Your task to perform on an android device: show emergency info Image 0: 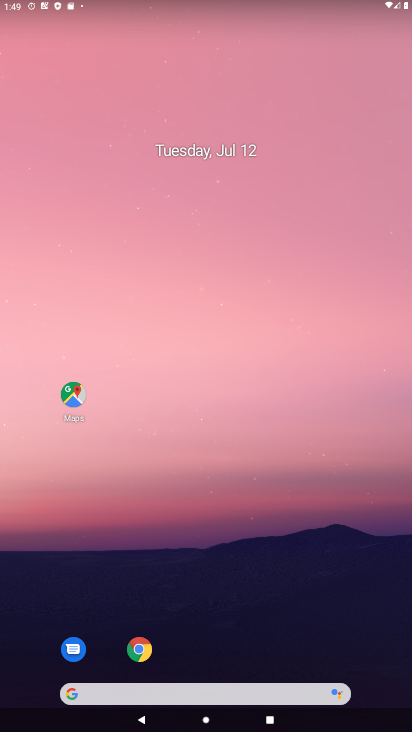
Step 0: drag from (387, 683) to (177, 18)
Your task to perform on an android device: show emergency info Image 1: 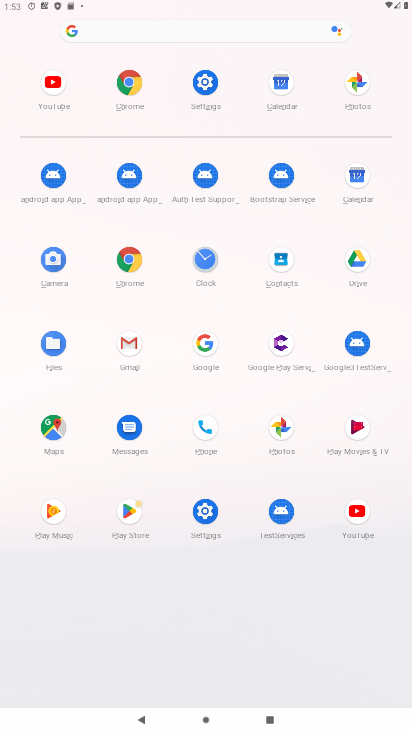
Step 1: click (204, 514)
Your task to perform on an android device: show emergency info Image 2: 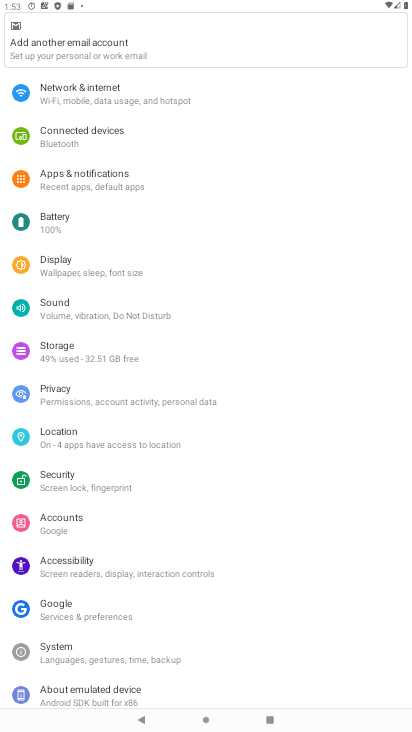
Step 2: click (72, 684)
Your task to perform on an android device: show emergency info Image 3: 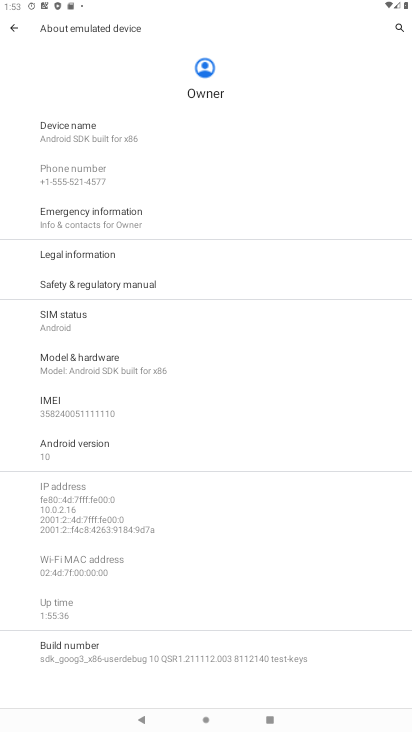
Step 3: click (96, 224)
Your task to perform on an android device: show emergency info Image 4: 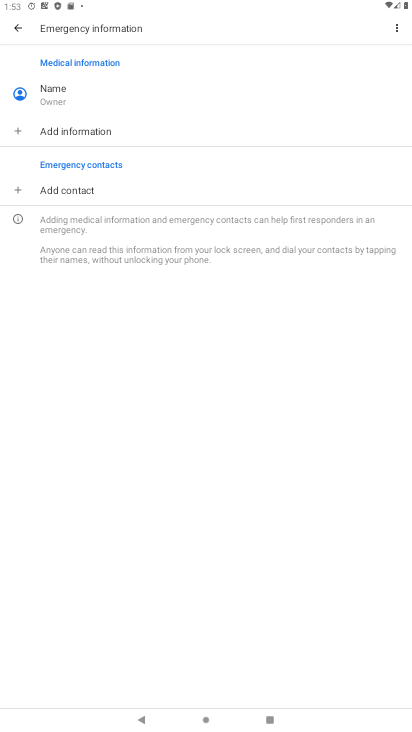
Step 4: task complete